Your task to perform on an android device: delete a single message in the gmail app Image 0: 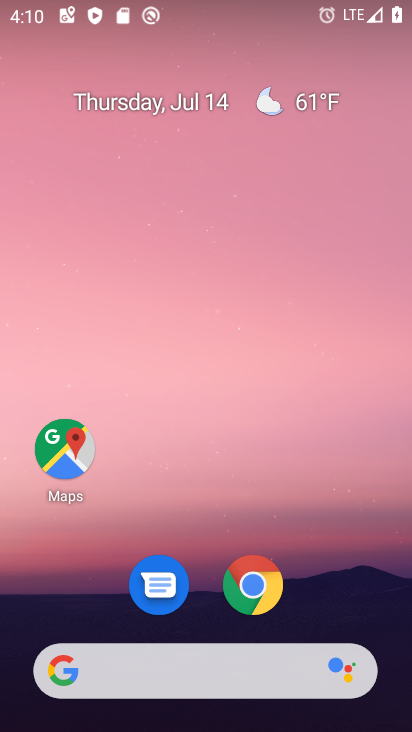
Step 0: drag from (226, 507) to (262, 33)
Your task to perform on an android device: delete a single message in the gmail app Image 1: 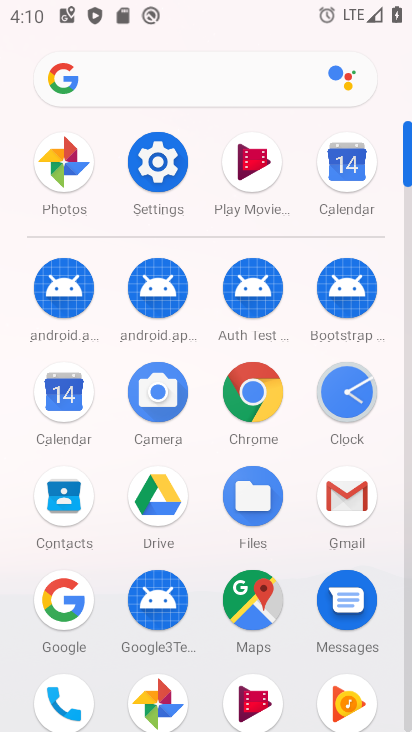
Step 1: click (331, 501)
Your task to perform on an android device: delete a single message in the gmail app Image 2: 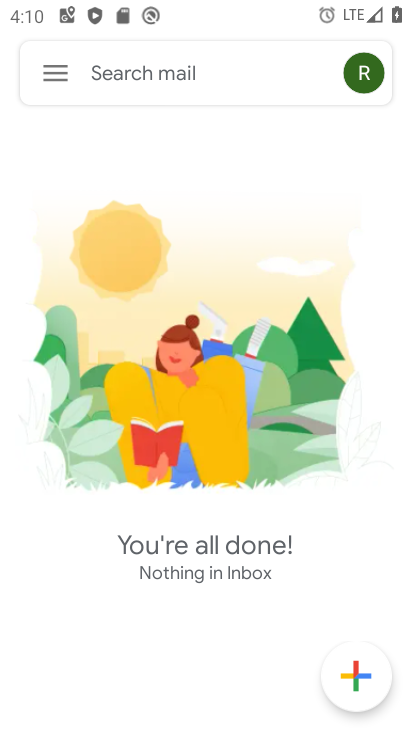
Step 2: click (63, 74)
Your task to perform on an android device: delete a single message in the gmail app Image 3: 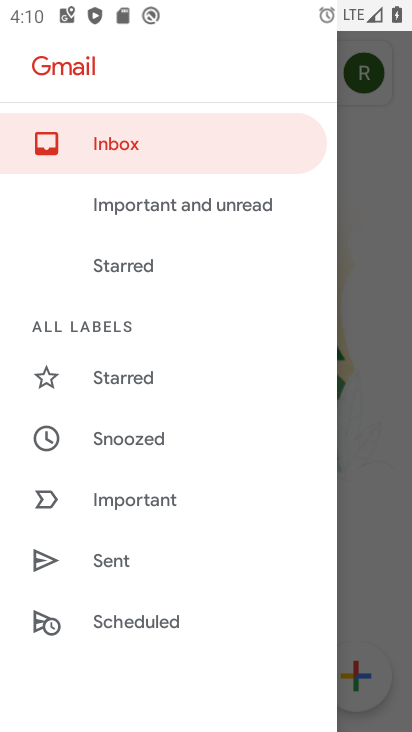
Step 3: drag from (163, 538) to (195, 107)
Your task to perform on an android device: delete a single message in the gmail app Image 4: 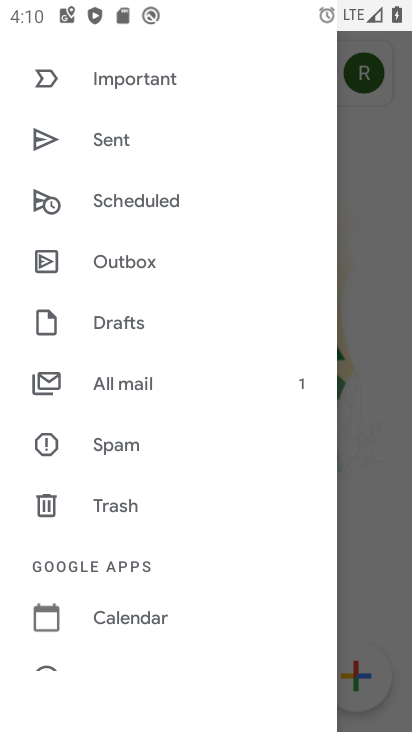
Step 4: click (165, 376)
Your task to perform on an android device: delete a single message in the gmail app Image 5: 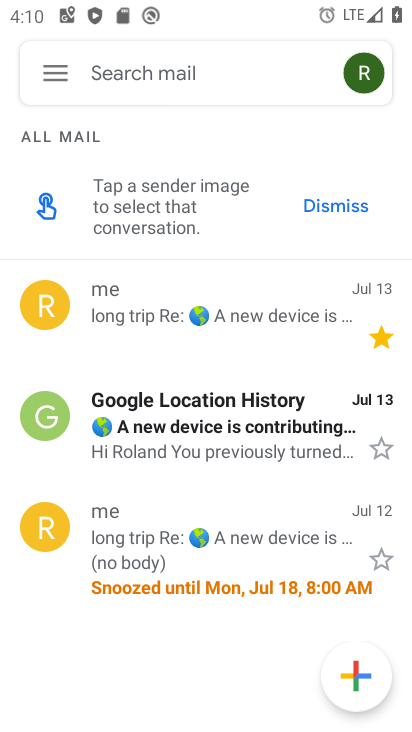
Step 5: click (180, 416)
Your task to perform on an android device: delete a single message in the gmail app Image 6: 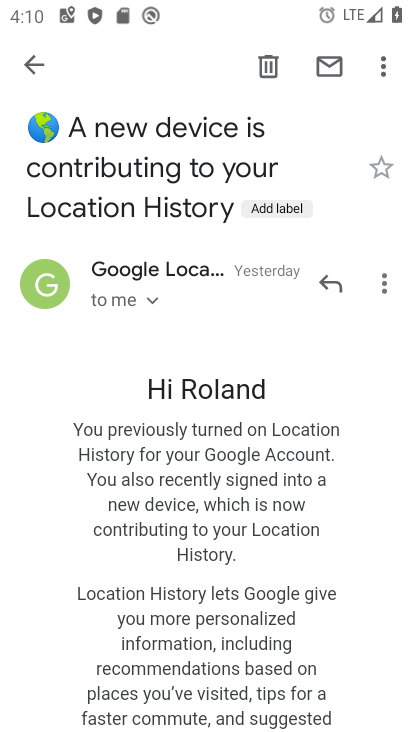
Step 6: click (273, 67)
Your task to perform on an android device: delete a single message in the gmail app Image 7: 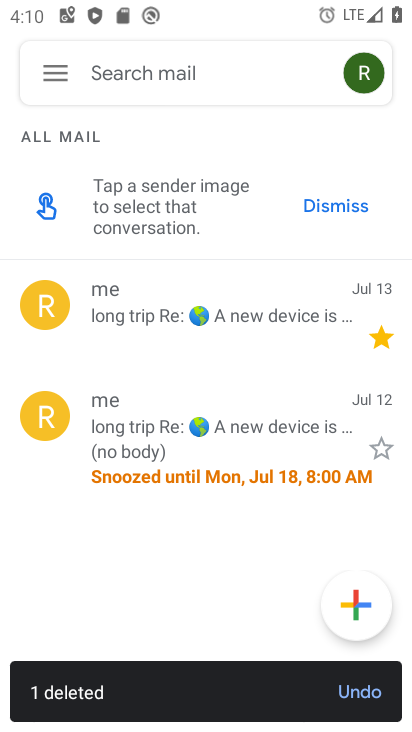
Step 7: task complete